Your task to perform on an android device: empty trash in the gmail app Image 0: 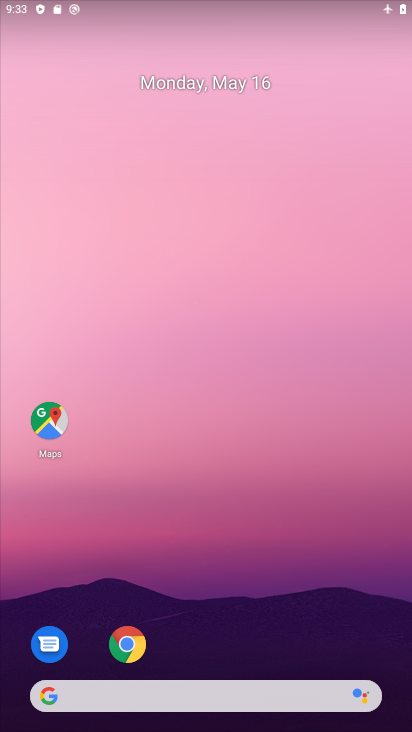
Step 0: press home button
Your task to perform on an android device: empty trash in the gmail app Image 1: 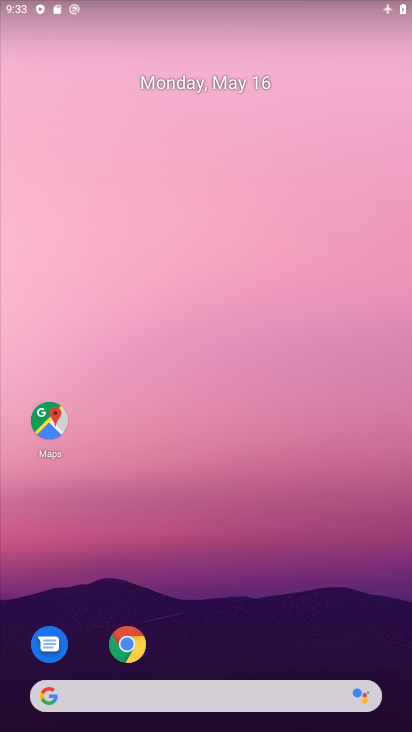
Step 1: drag from (66, 504) to (223, 110)
Your task to perform on an android device: empty trash in the gmail app Image 2: 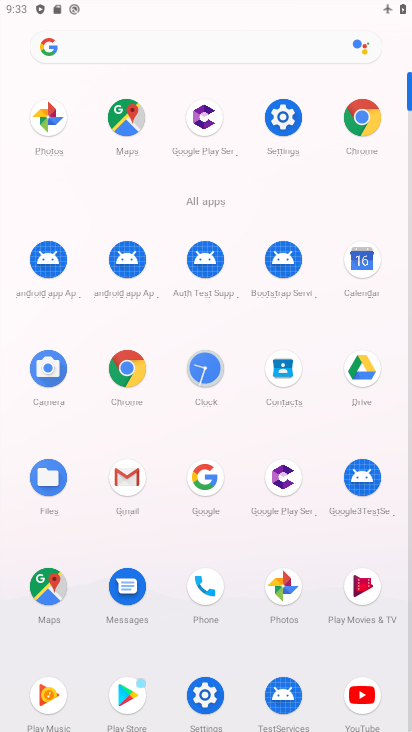
Step 2: click (136, 469)
Your task to perform on an android device: empty trash in the gmail app Image 3: 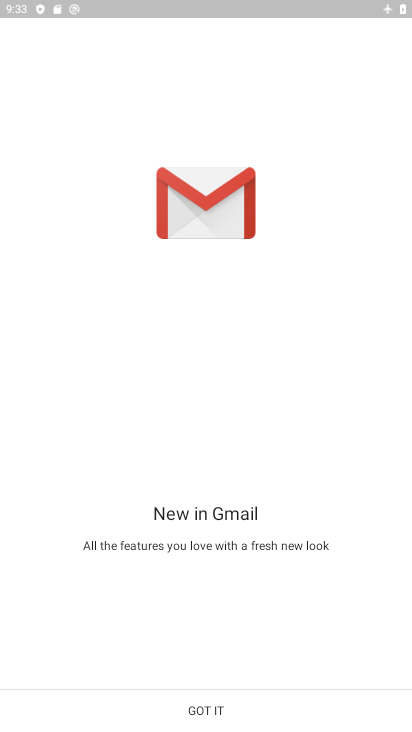
Step 3: click (208, 719)
Your task to perform on an android device: empty trash in the gmail app Image 4: 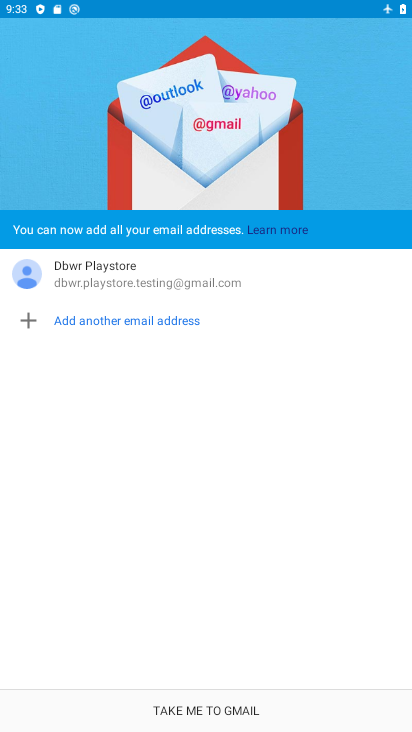
Step 4: click (193, 715)
Your task to perform on an android device: empty trash in the gmail app Image 5: 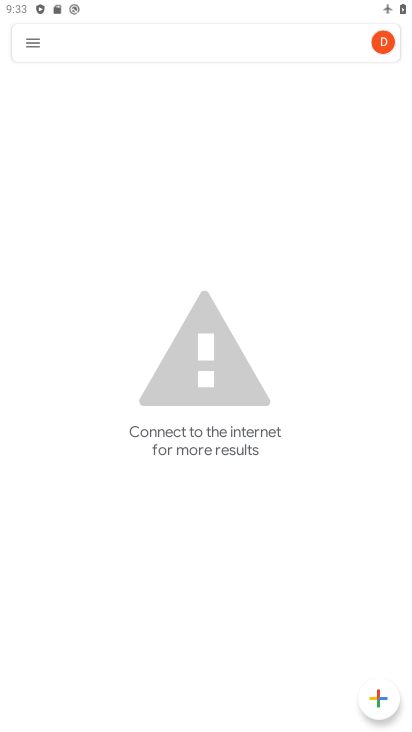
Step 5: click (37, 36)
Your task to perform on an android device: empty trash in the gmail app Image 6: 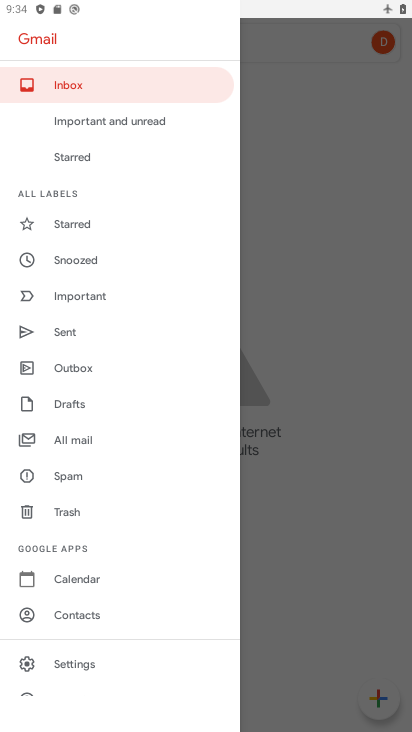
Step 6: click (70, 508)
Your task to perform on an android device: empty trash in the gmail app Image 7: 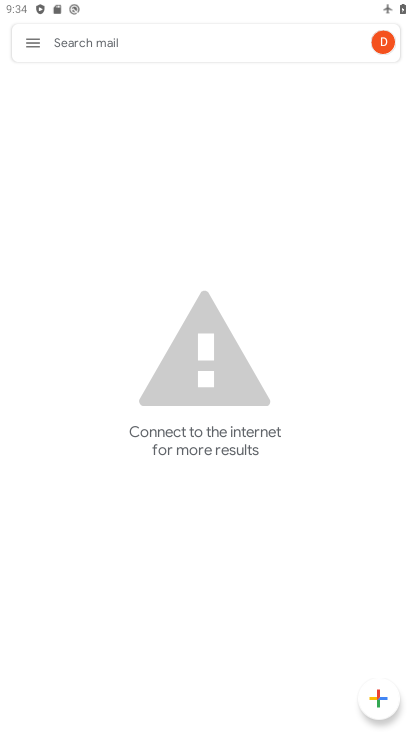
Step 7: task complete